Your task to perform on an android device: change notifications settings Image 0: 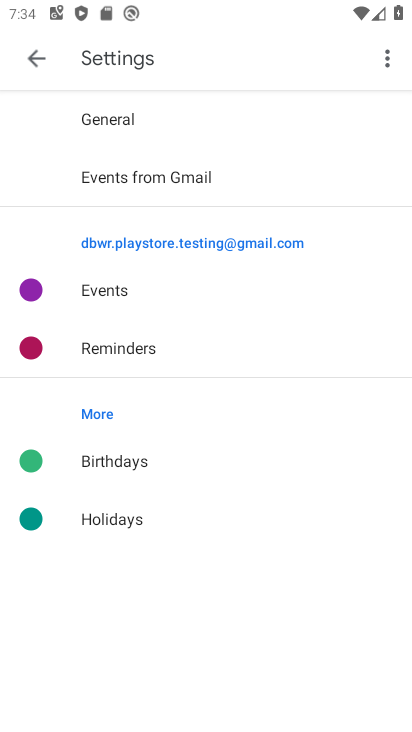
Step 0: press home button
Your task to perform on an android device: change notifications settings Image 1: 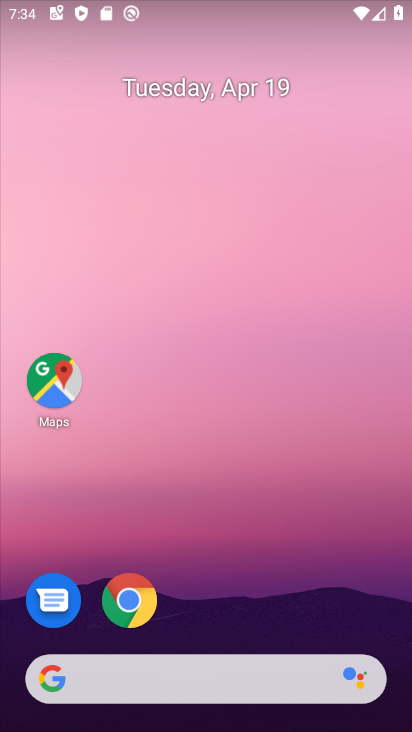
Step 1: drag from (380, 595) to (382, 98)
Your task to perform on an android device: change notifications settings Image 2: 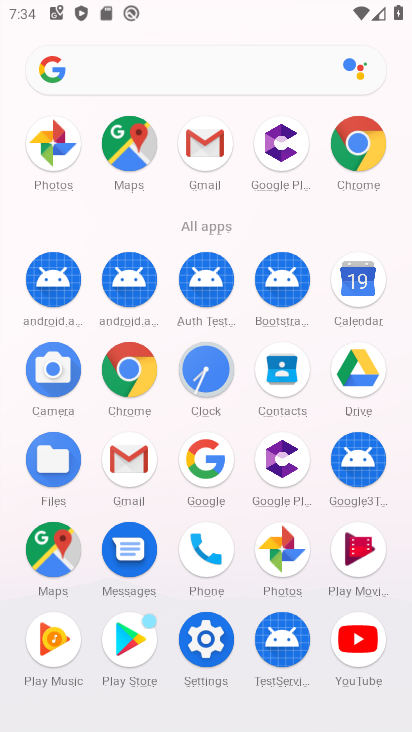
Step 2: click (209, 642)
Your task to perform on an android device: change notifications settings Image 3: 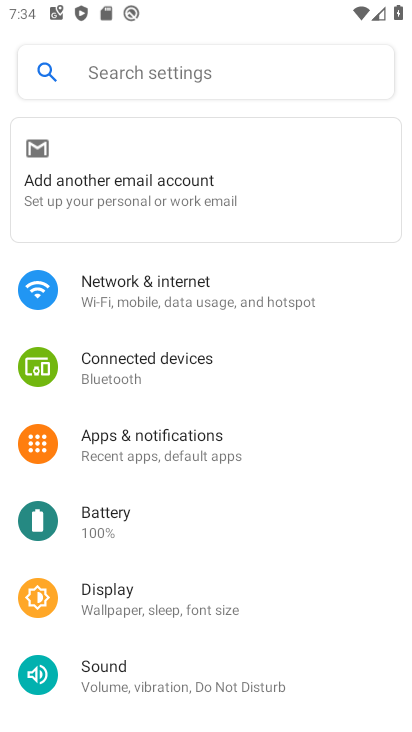
Step 3: drag from (361, 608) to (376, 351)
Your task to perform on an android device: change notifications settings Image 4: 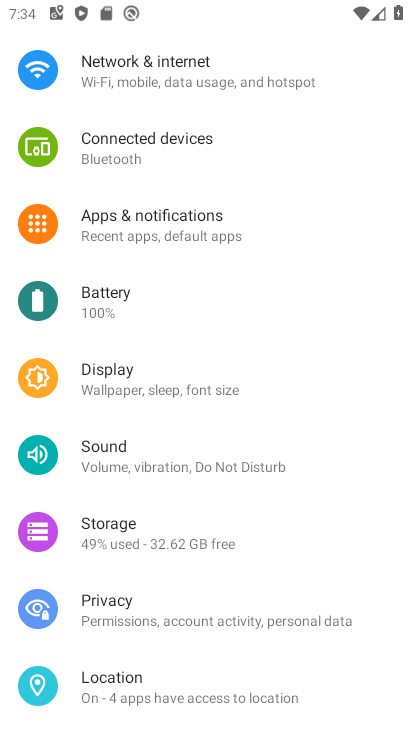
Step 4: drag from (370, 633) to (374, 308)
Your task to perform on an android device: change notifications settings Image 5: 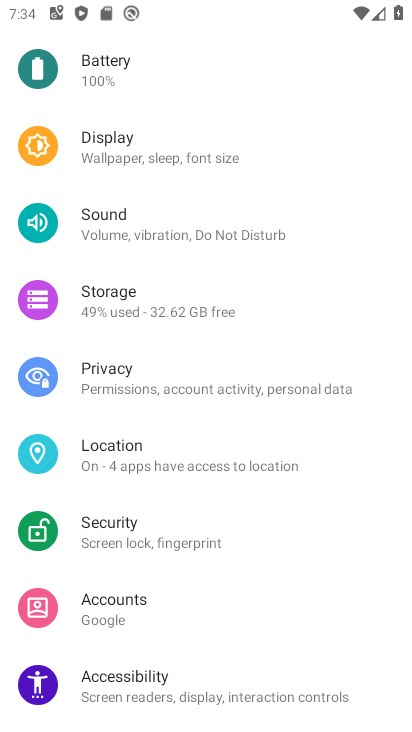
Step 5: drag from (350, 596) to (381, 281)
Your task to perform on an android device: change notifications settings Image 6: 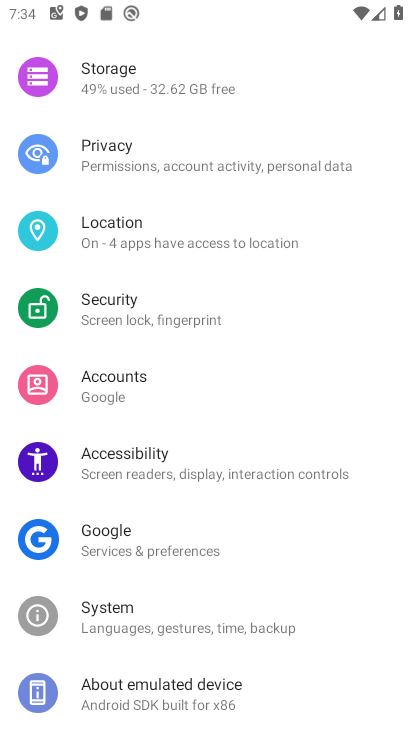
Step 6: drag from (383, 248) to (381, 506)
Your task to perform on an android device: change notifications settings Image 7: 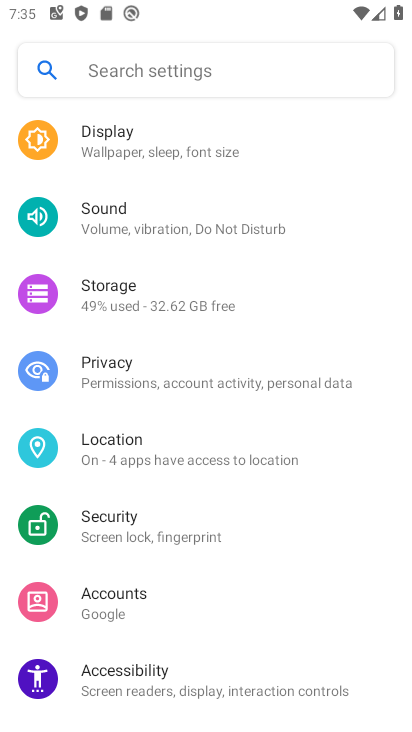
Step 7: drag from (384, 307) to (367, 573)
Your task to perform on an android device: change notifications settings Image 8: 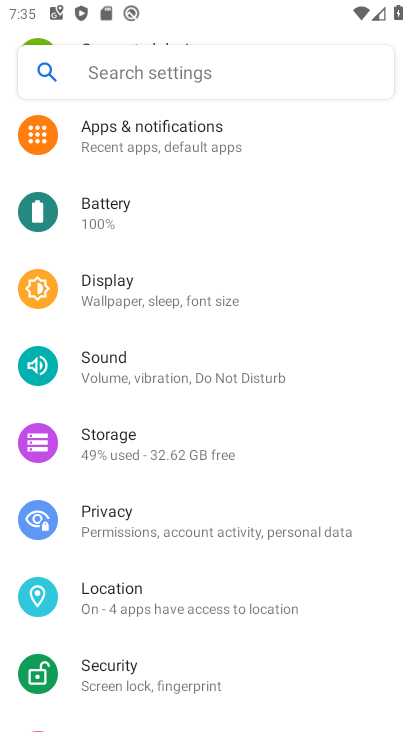
Step 8: drag from (368, 237) to (358, 567)
Your task to perform on an android device: change notifications settings Image 9: 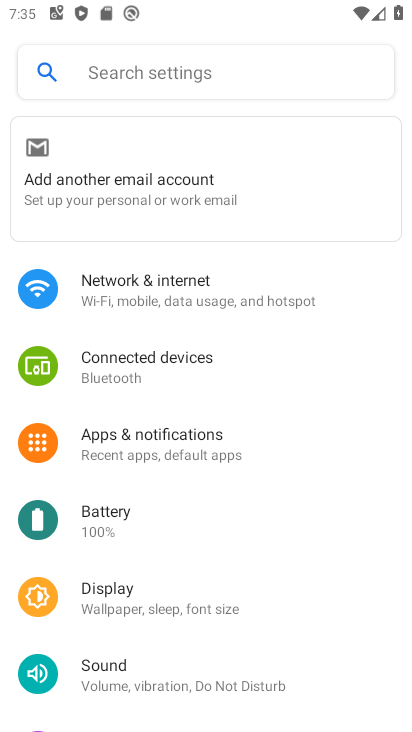
Step 9: click (170, 443)
Your task to perform on an android device: change notifications settings Image 10: 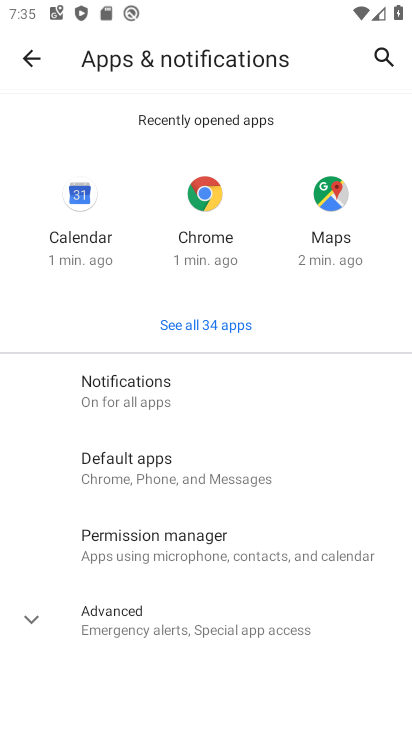
Step 10: click (138, 397)
Your task to perform on an android device: change notifications settings Image 11: 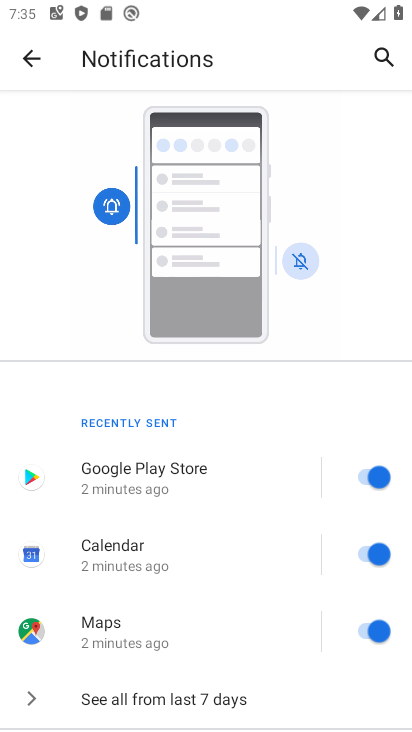
Step 11: drag from (234, 550) to (239, 197)
Your task to perform on an android device: change notifications settings Image 12: 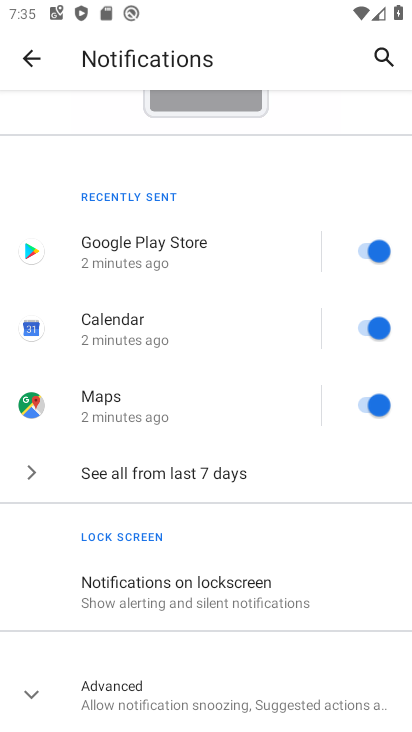
Step 12: click (376, 241)
Your task to perform on an android device: change notifications settings Image 13: 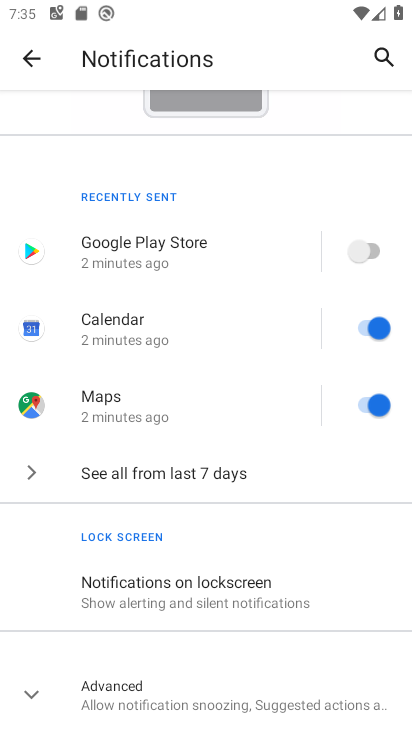
Step 13: click (366, 329)
Your task to perform on an android device: change notifications settings Image 14: 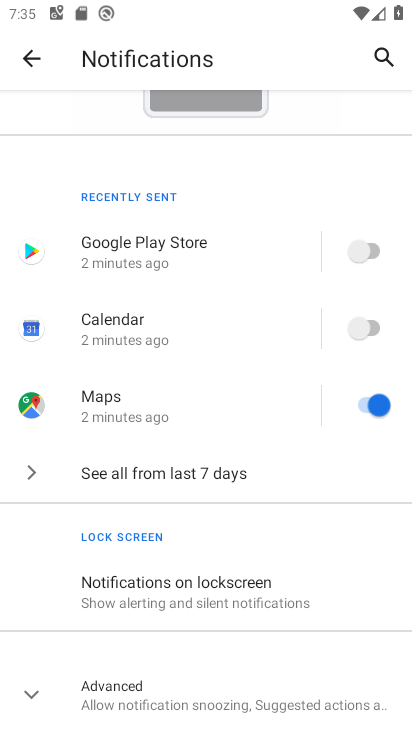
Step 14: click (384, 329)
Your task to perform on an android device: change notifications settings Image 15: 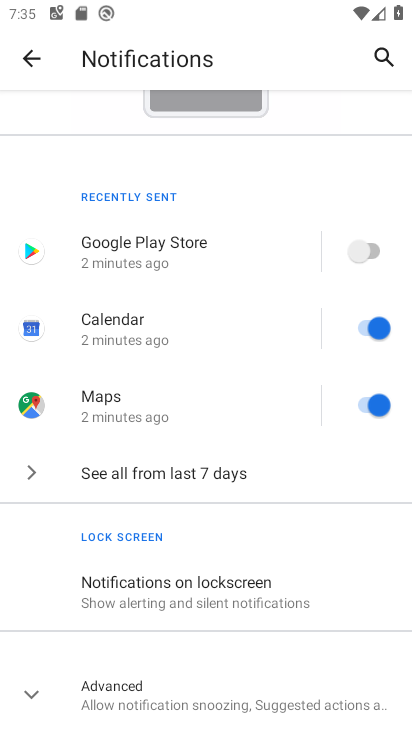
Step 15: click (386, 410)
Your task to perform on an android device: change notifications settings Image 16: 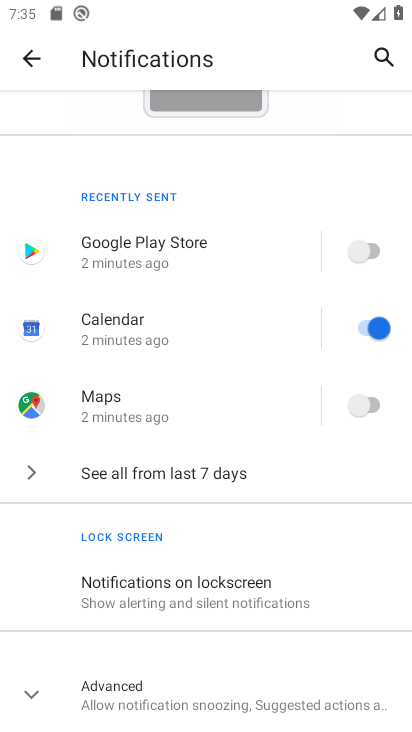
Step 16: click (375, 316)
Your task to perform on an android device: change notifications settings Image 17: 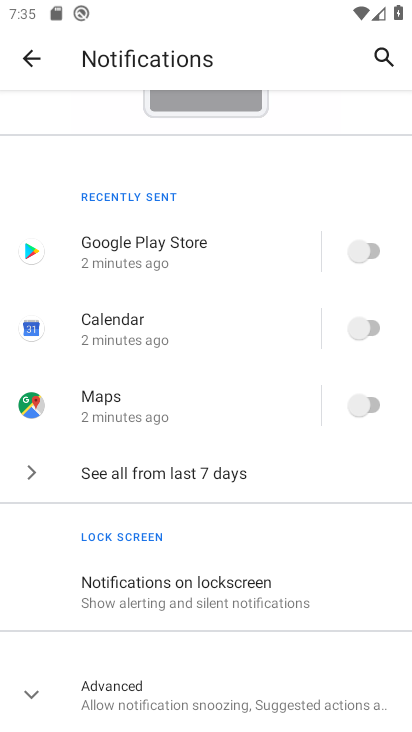
Step 17: task complete